Your task to perform on an android device: add a label to a message in the gmail app Image 0: 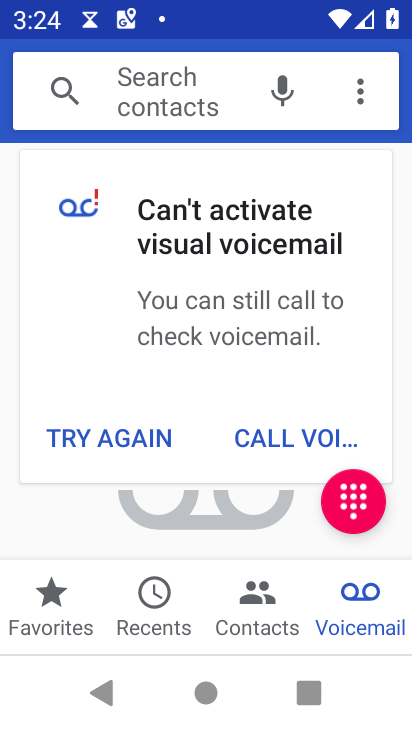
Step 0: press home button
Your task to perform on an android device: add a label to a message in the gmail app Image 1: 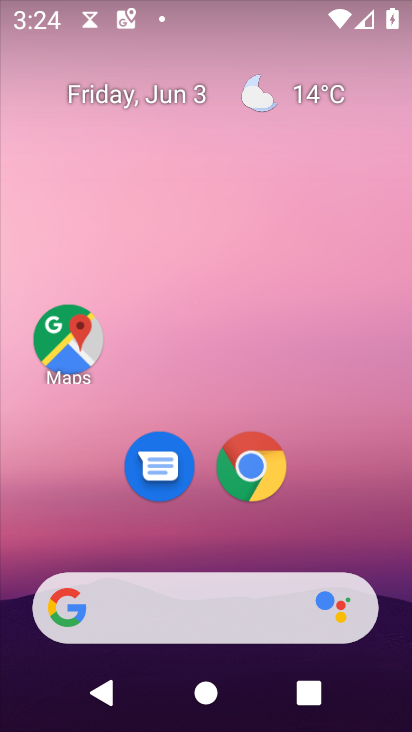
Step 1: drag from (361, 505) to (298, 77)
Your task to perform on an android device: add a label to a message in the gmail app Image 2: 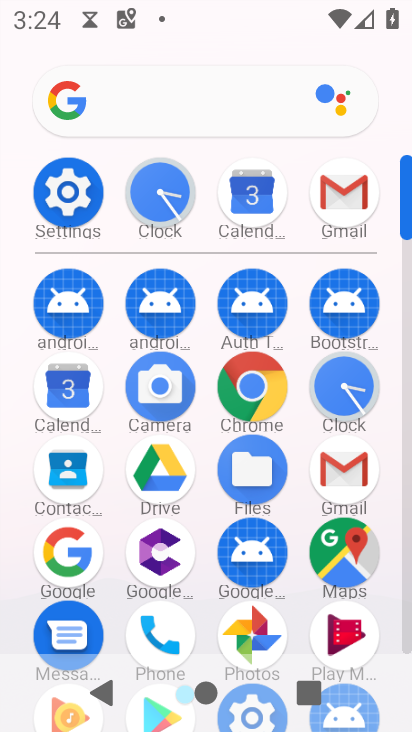
Step 2: click (315, 178)
Your task to perform on an android device: add a label to a message in the gmail app Image 3: 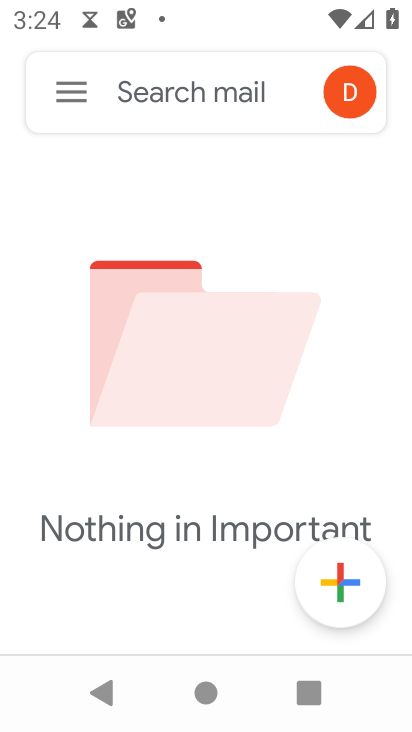
Step 3: click (81, 97)
Your task to perform on an android device: add a label to a message in the gmail app Image 4: 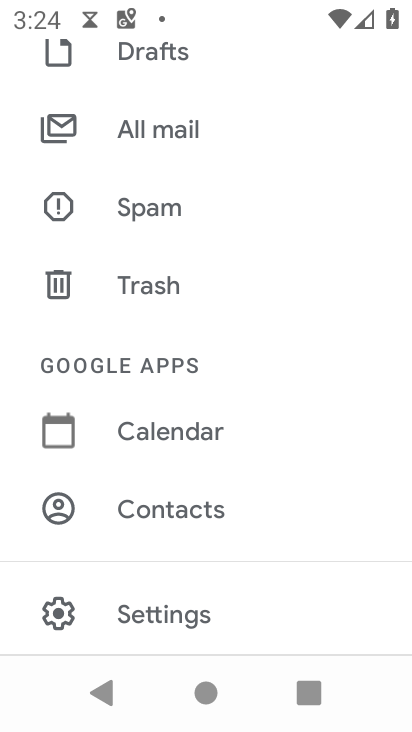
Step 4: click (112, 144)
Your task to perform on an android device: add a label to a message in the gmail app Image 5: 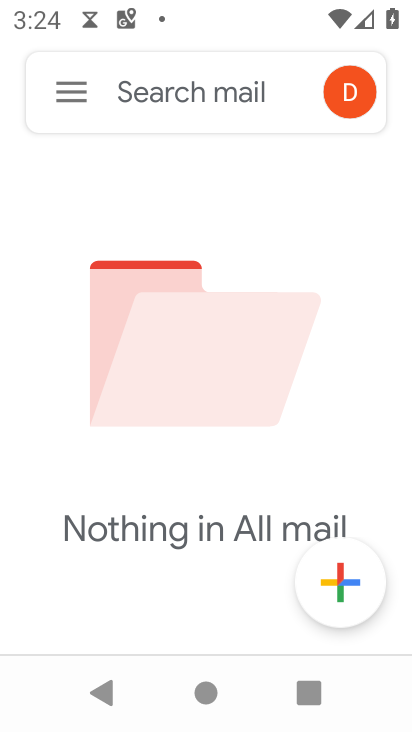
Step 5: task complete